Your task to perform on an android device: move a message to another label in the gmail app Image 0: 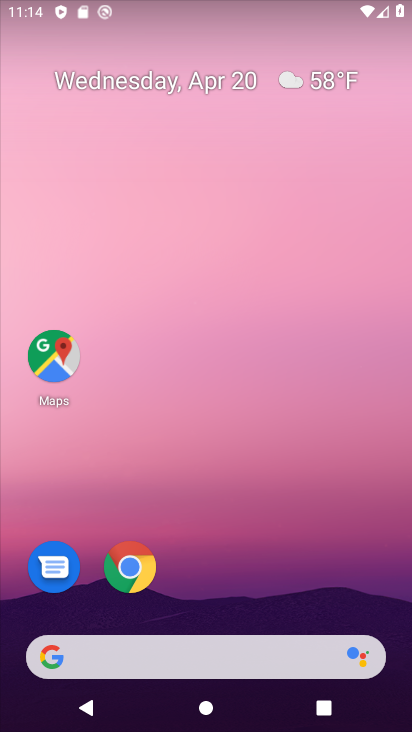
Step 0: drag from (271, 559) to (208, 109)
Your task to perform on an android device: move a message to another label in the gmail app Image 1: 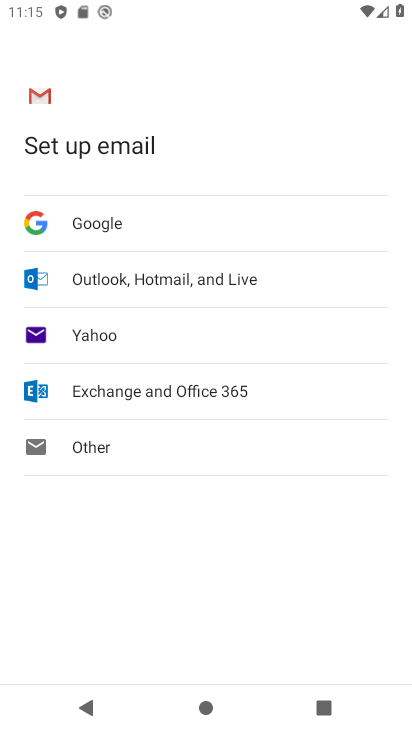
Step 1: press back button
Your task to perform on an android device: move a message to another label in the gmail app Image 2: 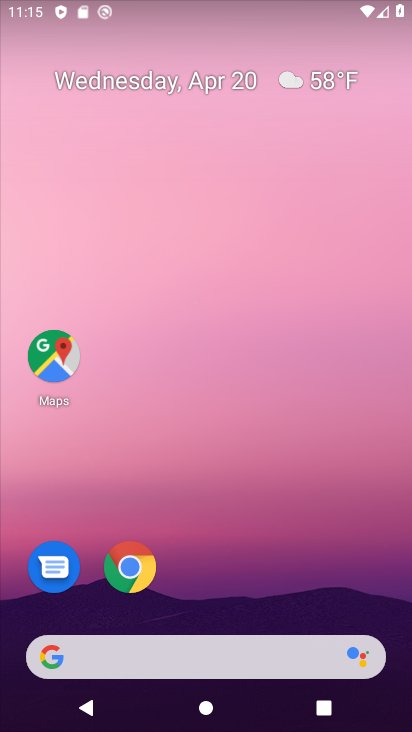
Step 2: drag from (309, 422) to (273, 155)
Your task to perform on an android device: move a message to another label in the gmail app Image 3: 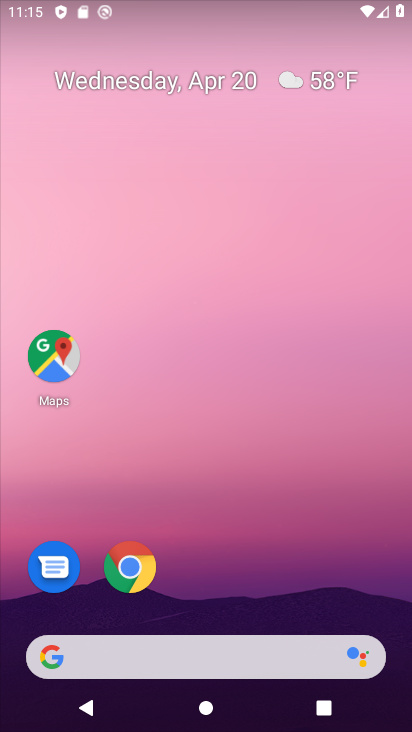
Step 3: drag from (250, 608) to (196, 75)
Your task to perform on an android device: move a message to another label in the gmail app Image 4: 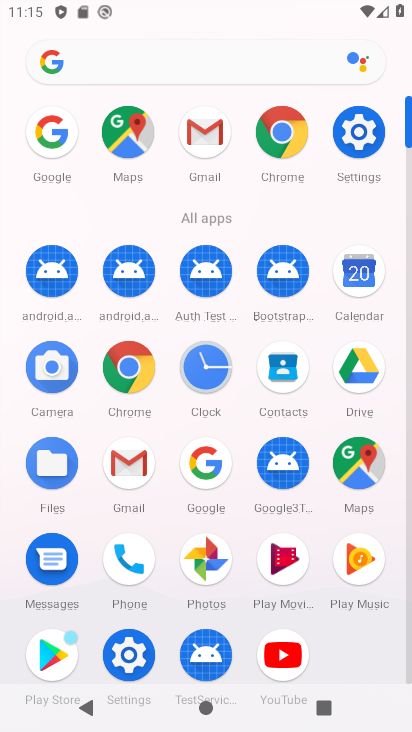
Step 4: click (119, 475)
Your task to perform on an android device: move a message to another label in the gmail app Image 5: 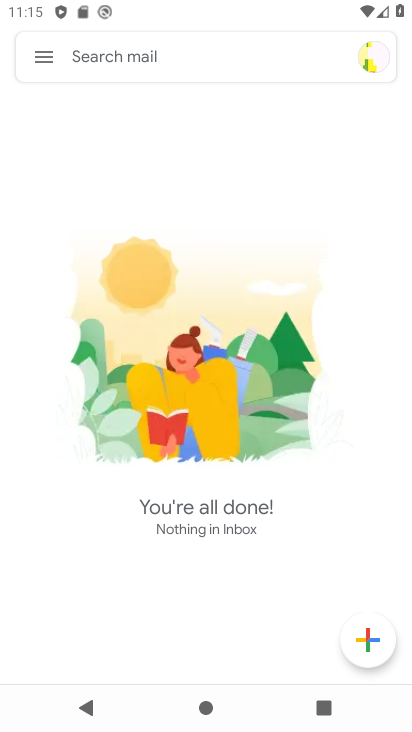
Step 5: task complete